Your task to perform on an android device: read, delete, or share a saved page in the chrome app Image 0: 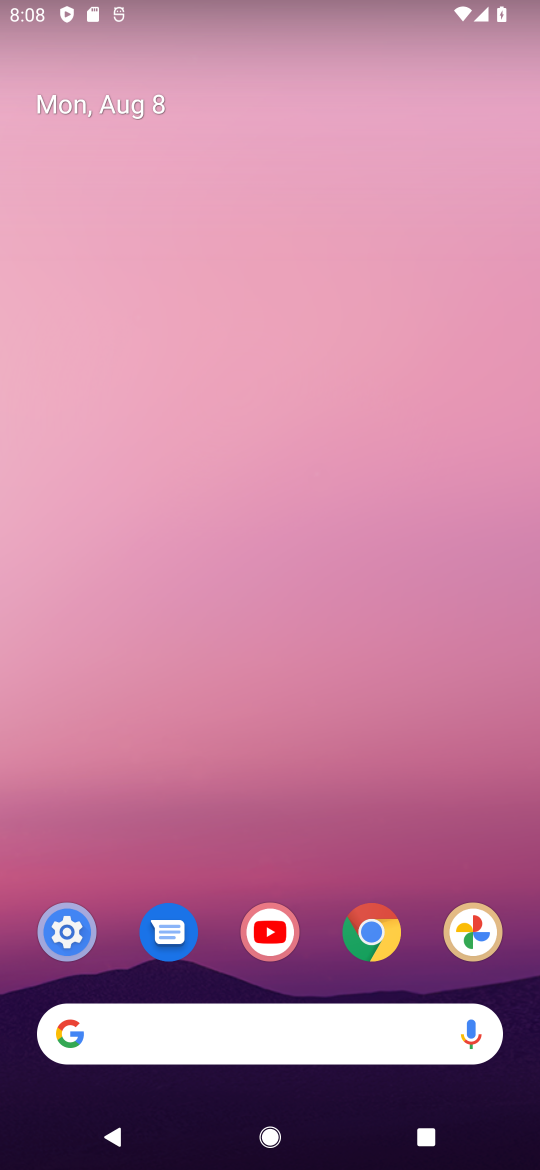
Step 0: click (397, 934)
Your task to perform on an android device: read, delete, or share a saved page in the chrome app Image 1: 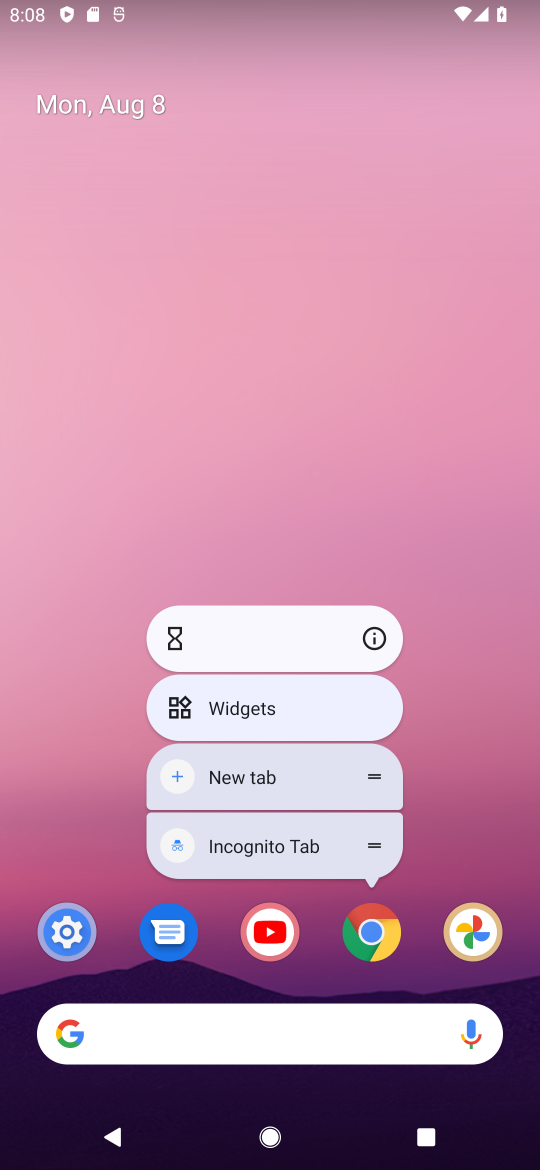
Step 1: click (360, 932)
Your task to perform on an android device: read, delete, or share a saved page in the chrome app Image 2: 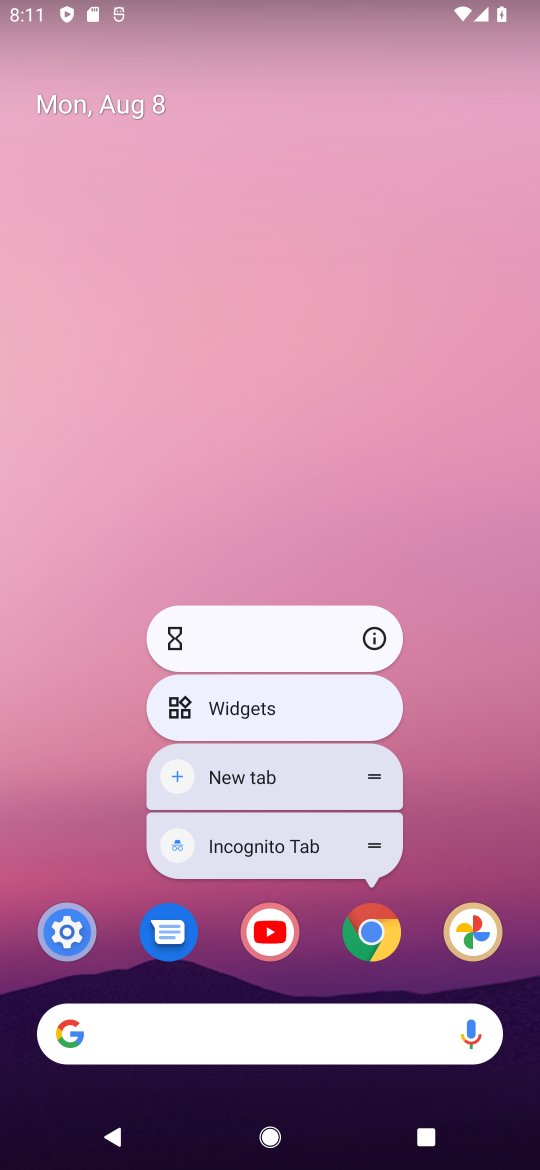
Step 2: click (356, 948)
Your task to perform on an android device: read, delete, or share a saved page in the chrome app Image 3: 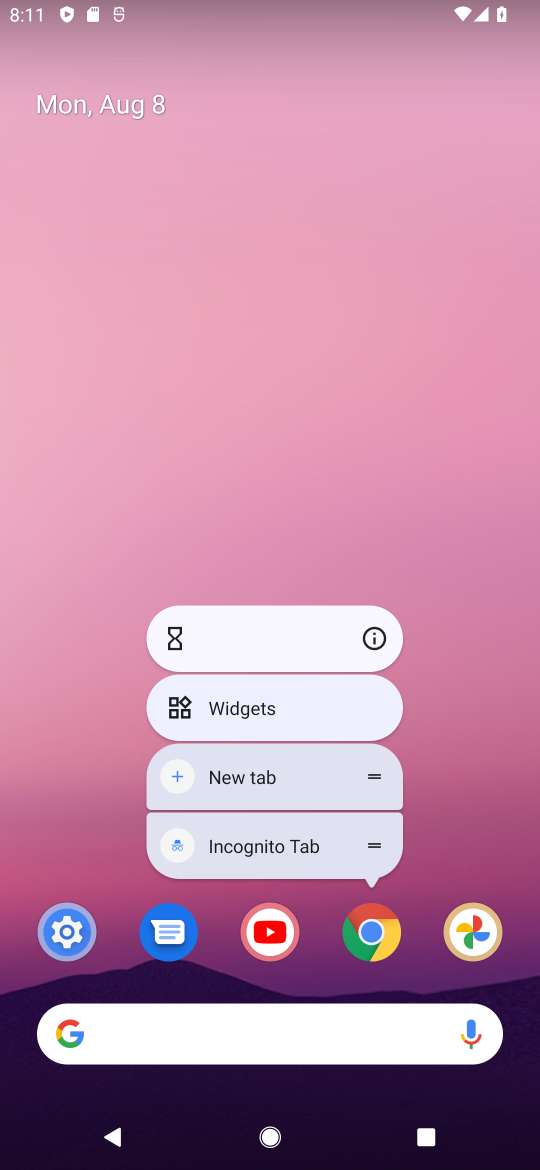
Step 3: click (368, 946)
Your task to perform on an android device: read, delete, or share a saved page in the chrome app Image 4: 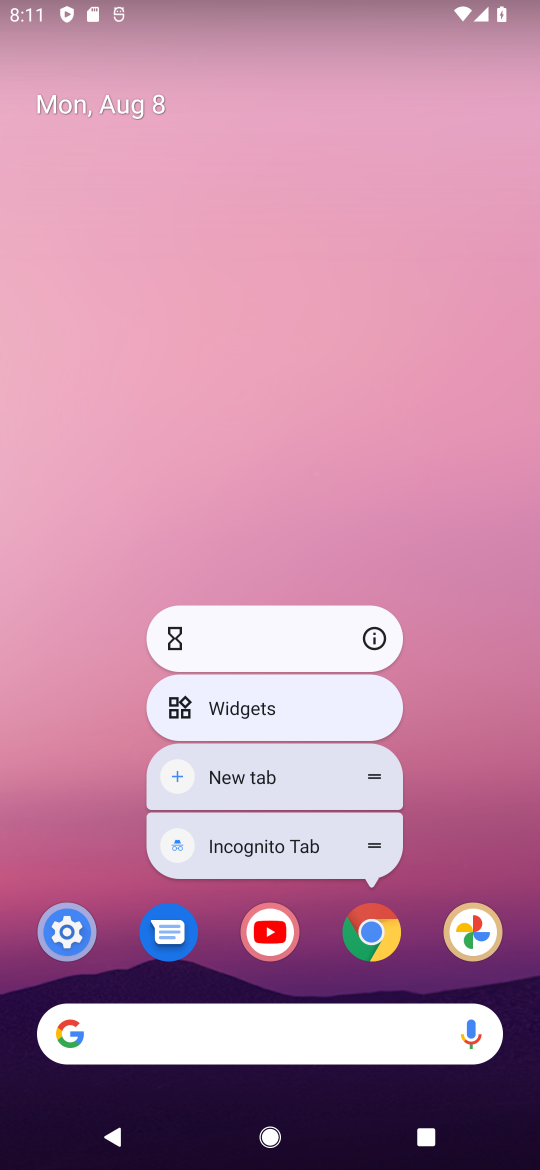
Step 4: click (368, 946)
Your task to perform on an android device: read, delete, or share a saved page in the chrome app Image 5: 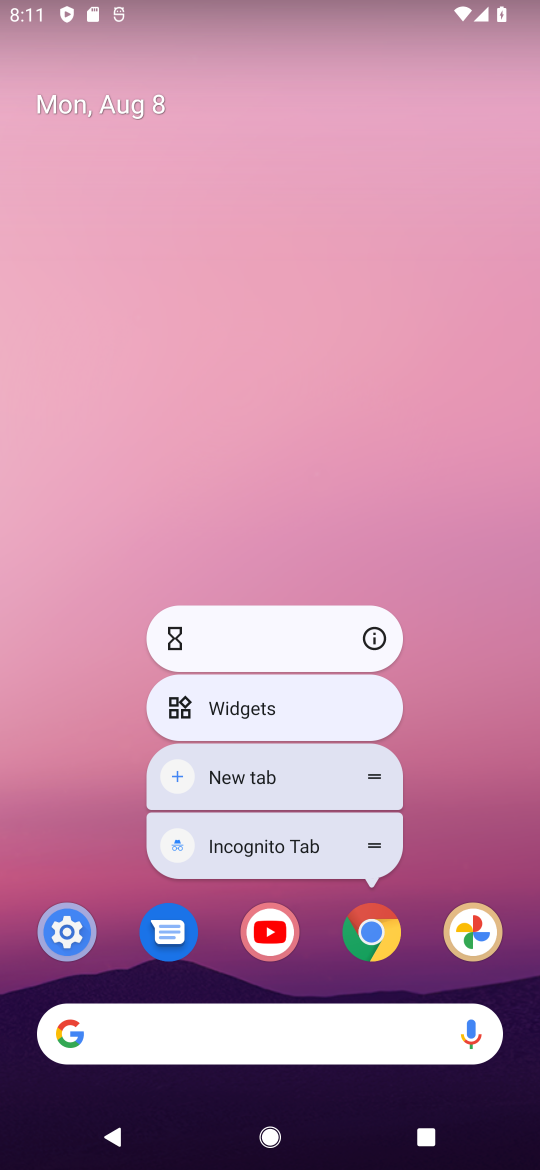
Step 5: click (392, 933)
Your task to perform on an android device: read, delete, or share a saved page in the chrome app Image 6: 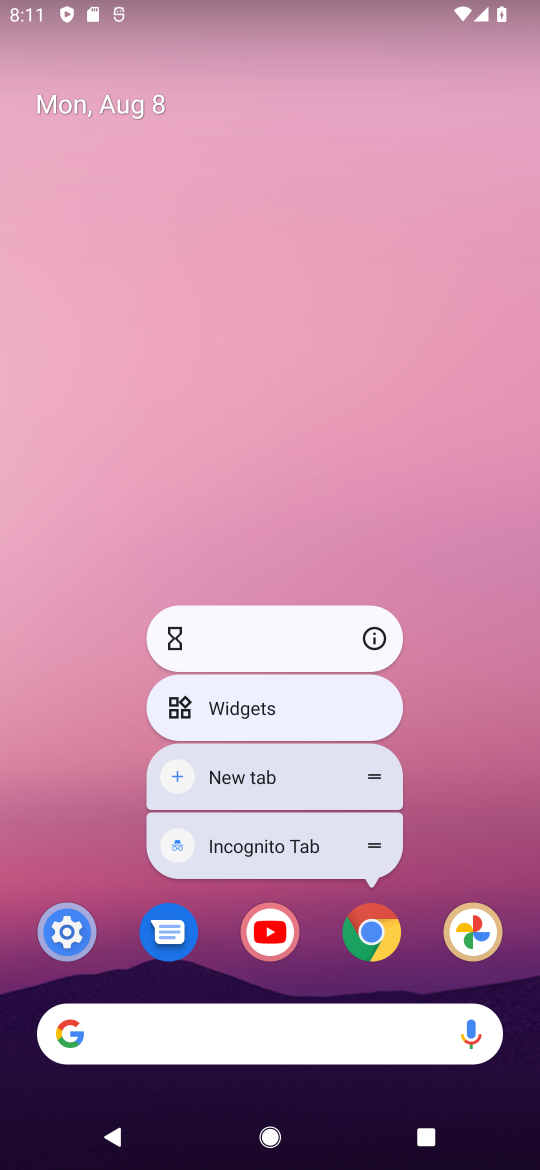
Step 6: click (348, 921)
Your task to perform on an android device: read, delete, or share a saved page in the chrome app Image 7: 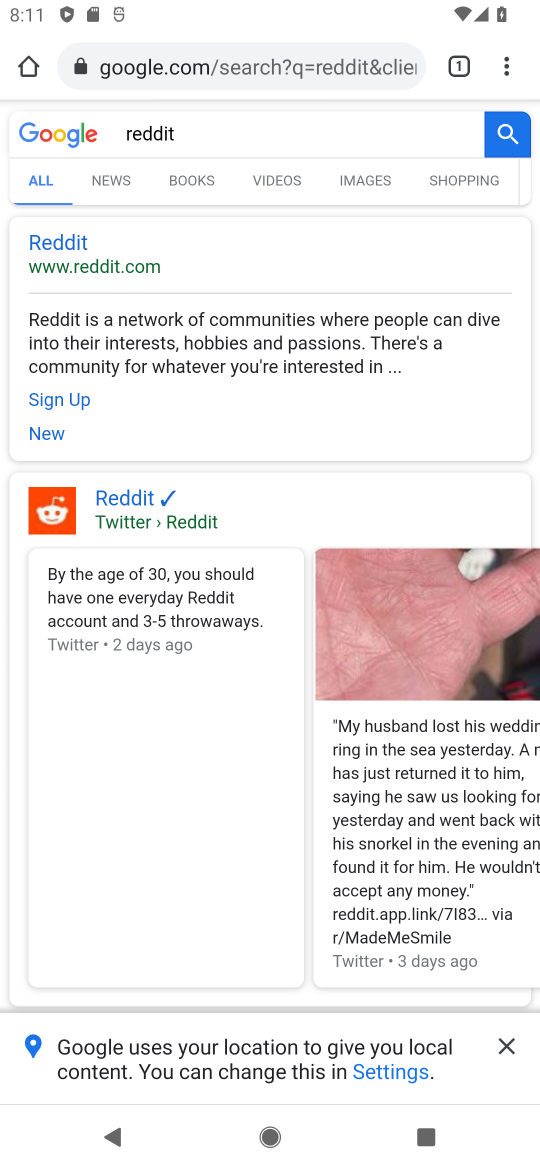
Step 7: task complete